Your task to perform on an android device: toggle priority inbox in the gmail app Image 0: 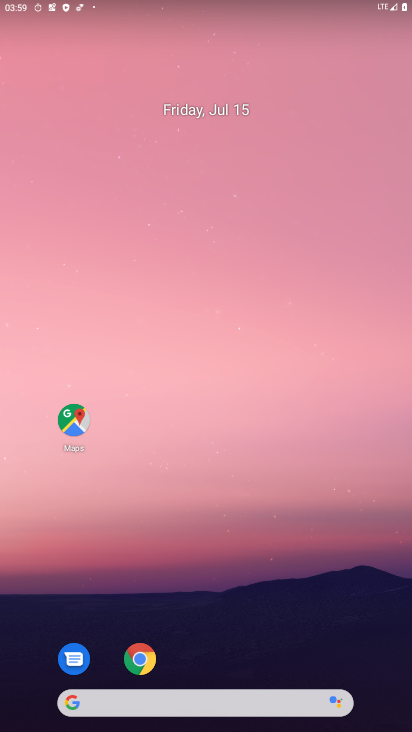
Step 0: drag from (318, 632) to (251, 80)
Your task to perform on an android device: toggle priority inbox in the gmail app Image 1: 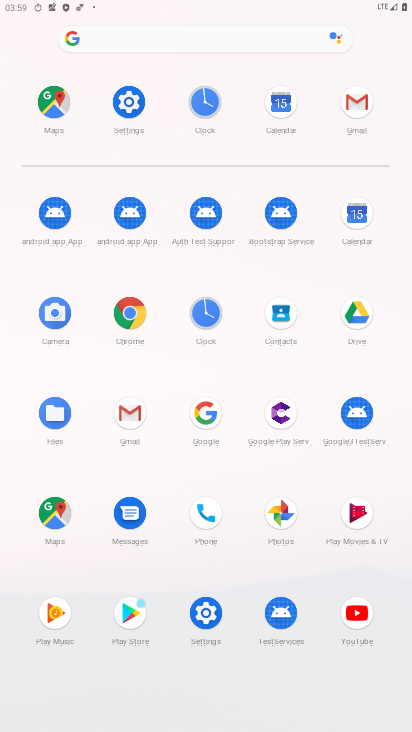
Step 1: click (123, 407)
Your task to perform on an android device: toggle priority inbox in the gmail app Image 2: 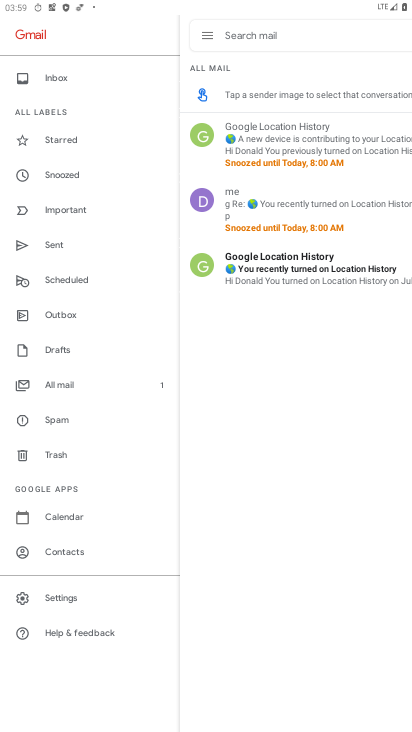
Step 2: click (47, 603)
Your task to perform on an android device: toggle priority inbox in the gmail app Image 3: 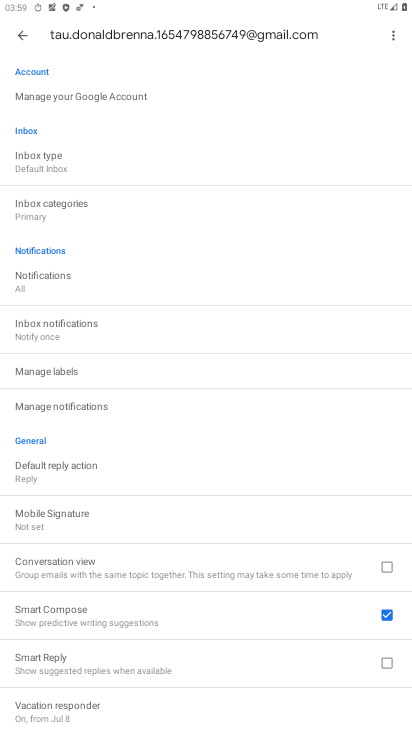
Step 3: click (81, 169)
Your task to perform on an android device: toggle priority inbox in the gmail app Image 4: 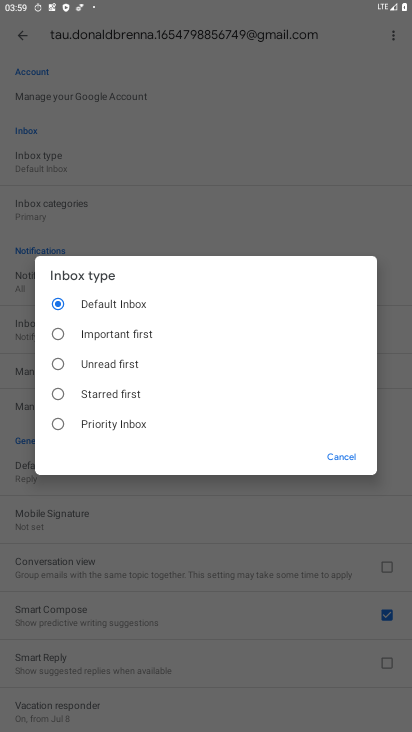
Step 4: click (89, 426)
Your task to perform on an android device: toggle priority inbox in the gmail app Image 5: 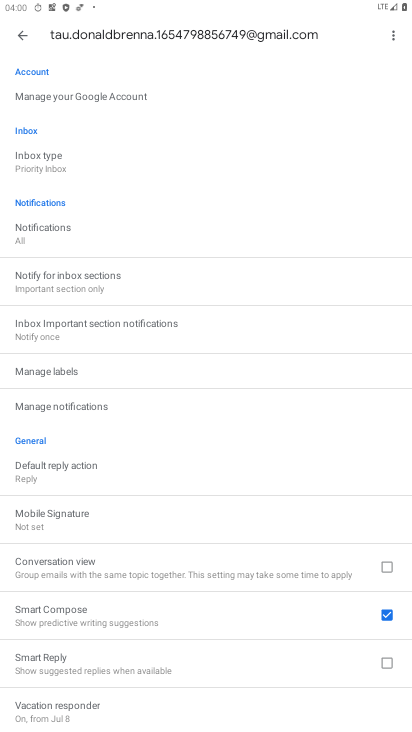
Step 5: task complete